Your task to perform on an android device: set the timer Image 0: 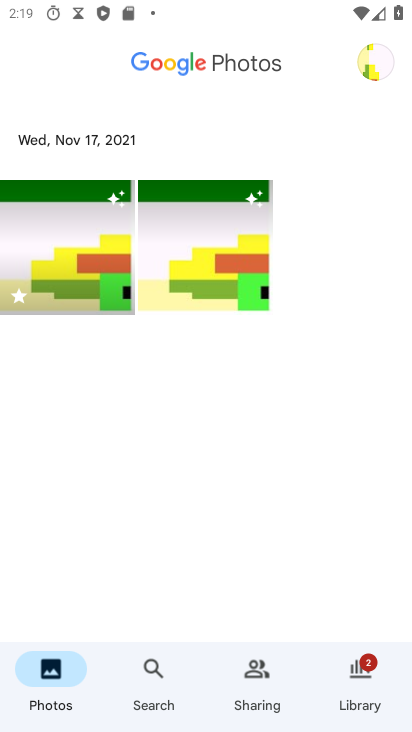
Step 0: press home button
Your task to perform on an android device: set the timer Image 1: 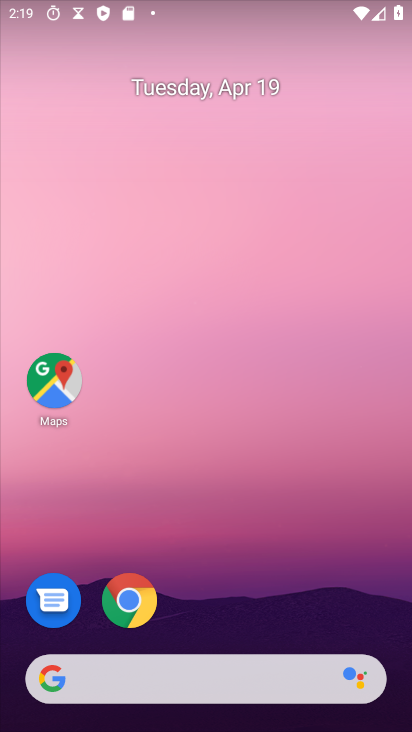
Step 1: drag from (226, 704) to (354, 265)
Your task to perform on an android device: set the timer Image 2: 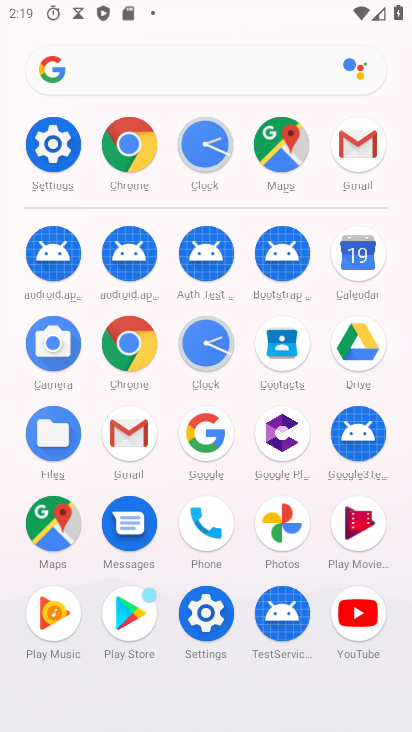
Step 2: click (196, 348)
Your task to perform on an android device: set the timer Image 3: 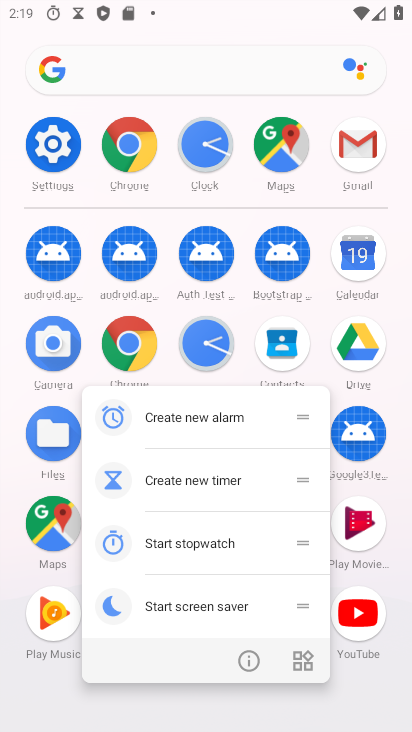
Step 3: click (236, 339)
Your task to perform on an android device: set the timer Image 4: 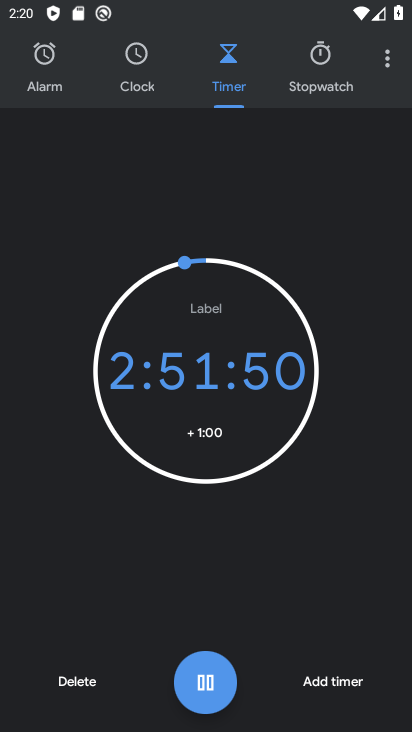
Step 4: click (195, 695)
Your task to perform on an android device: set the timer Image 5: 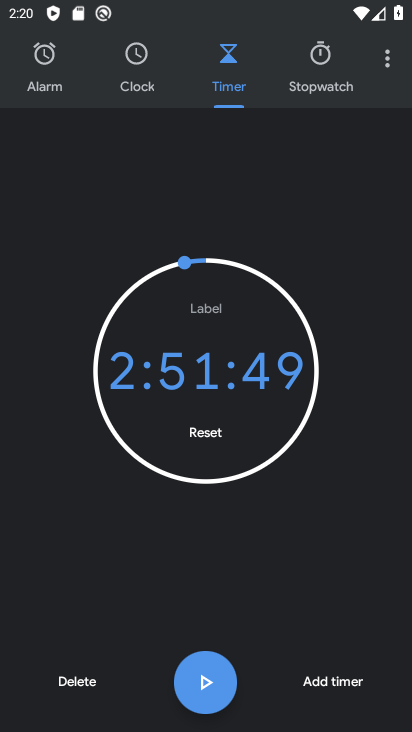
Step 5: click (313, 677)
Your task to perform on an android device: set the timer Image 6: 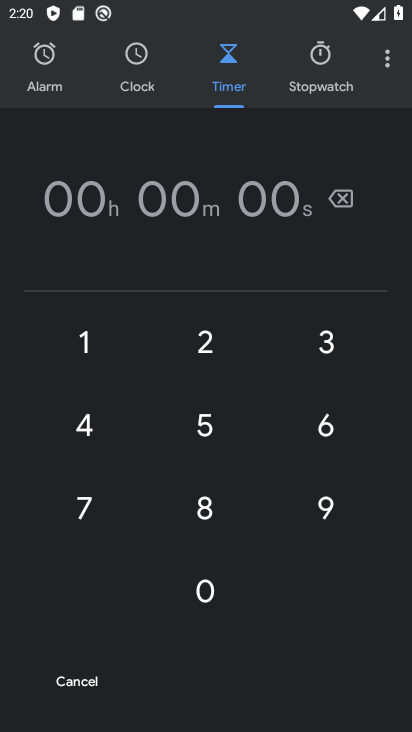
Step 6: click (234, 393)
Your task to perform on an android device: set the timer Image 7: 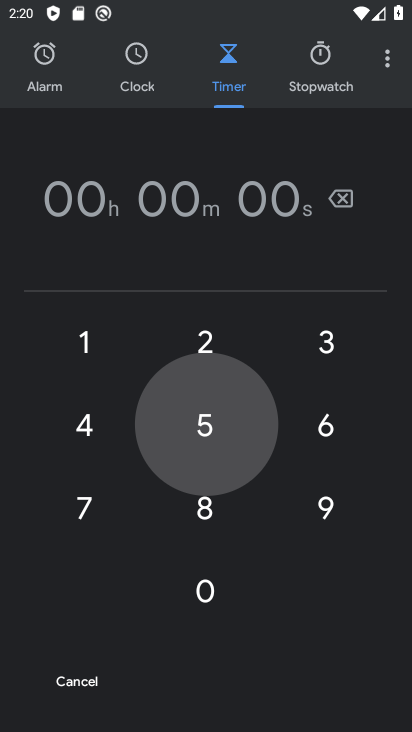
Step 7: click (212, 360)
Your task to perform on an android device: set the timer Image 8: 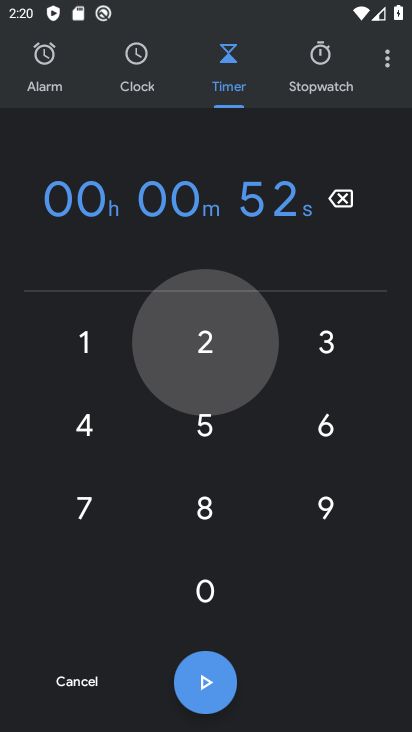
Step 8: click (104, 435)
Your task to perform on an android device: set the timer Image 9: 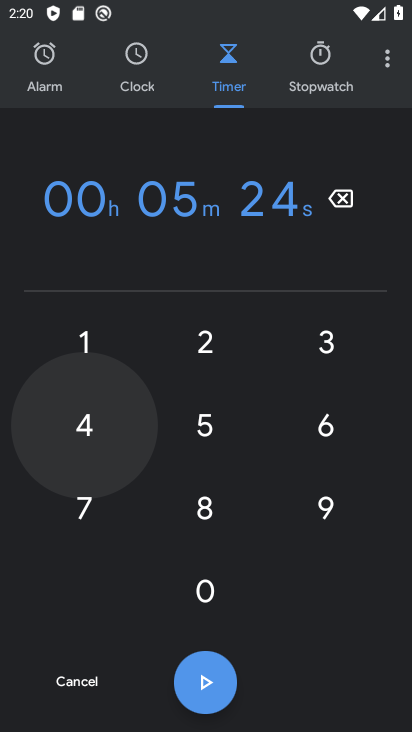
Step 9: click (208, 533)
Your task to perform on an android device: set the timer Image 10: 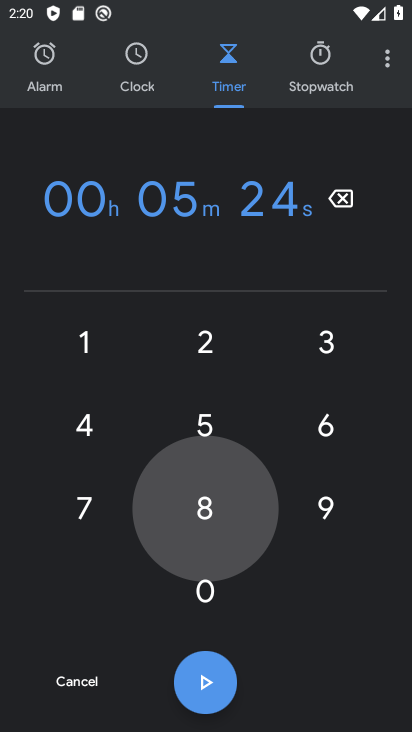
Step 10: click (195, 574)
Your task to perform on an android device: set the timer Image 11: 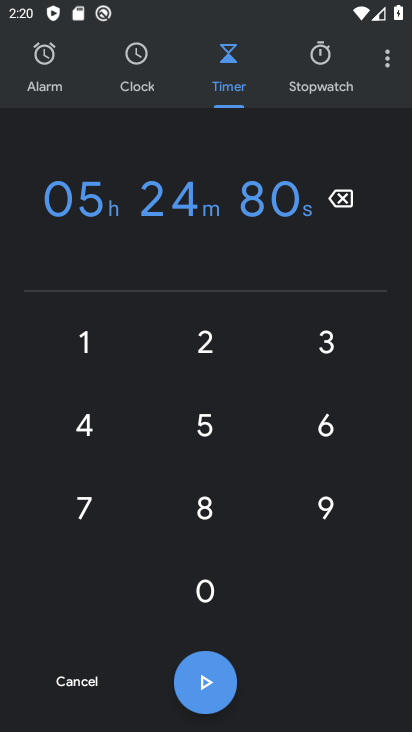
Step 11: task complete